Your task to perform on an android device: Go to CNN.com Image 0: 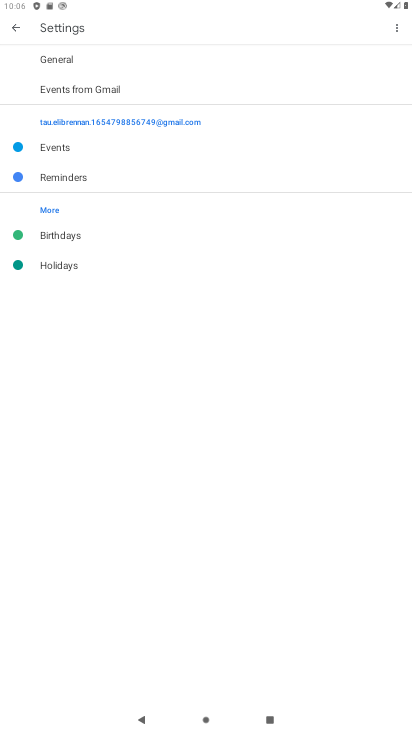
Step 0: press home button
Your task to perform on an android device: Go to CNN.com Image 1: 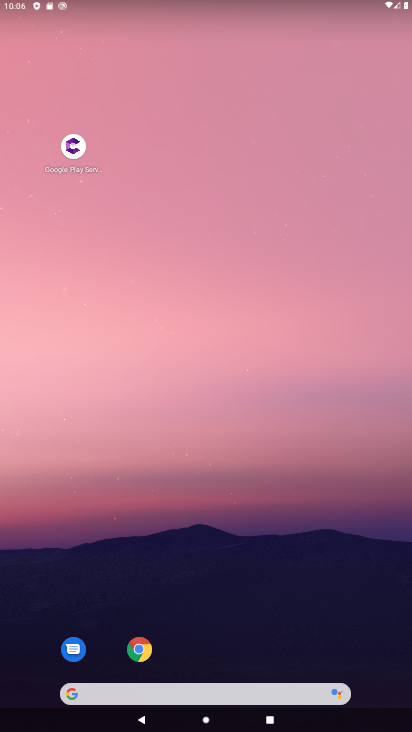
Step 1: click (145, 645)
Your task to perform on an android device: Go to CNN.com Image 2: 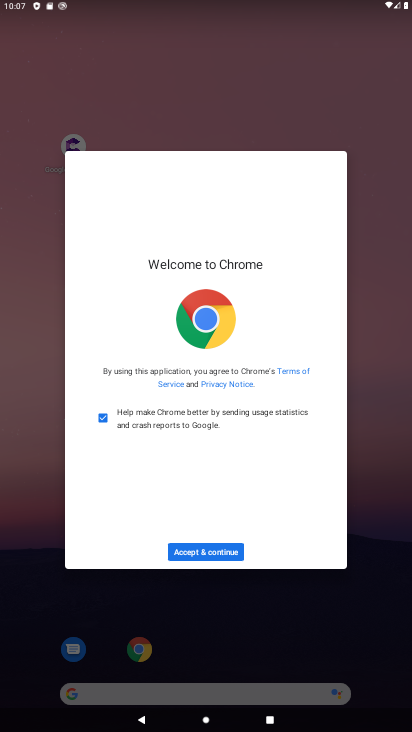
Step 2: click (218, 546)
Your task to perform on an android device: Go to CNN.com Image 3: 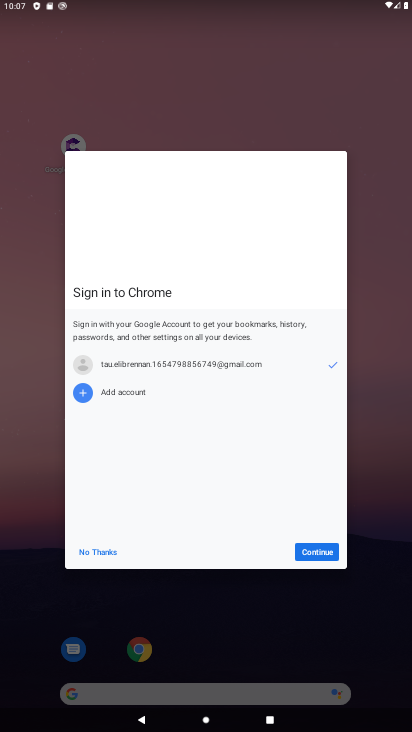
Step 3: click (313, 554)
Your task to perform on an android device: Go to CNN.com Image 4: 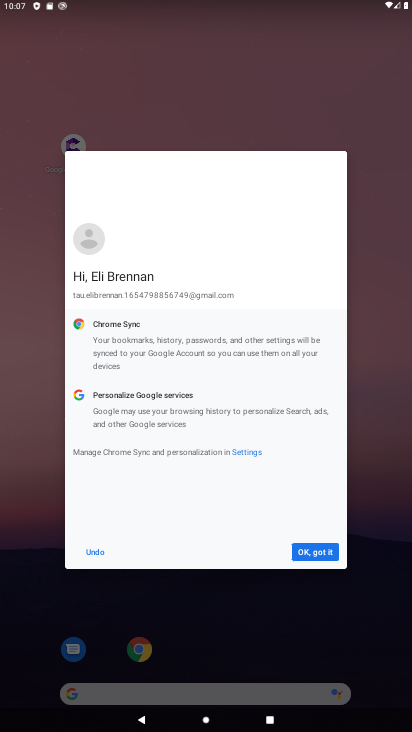
Step 4: click (312, 553)
Your task to perform on an android device: Go to CNN.com Image 5: 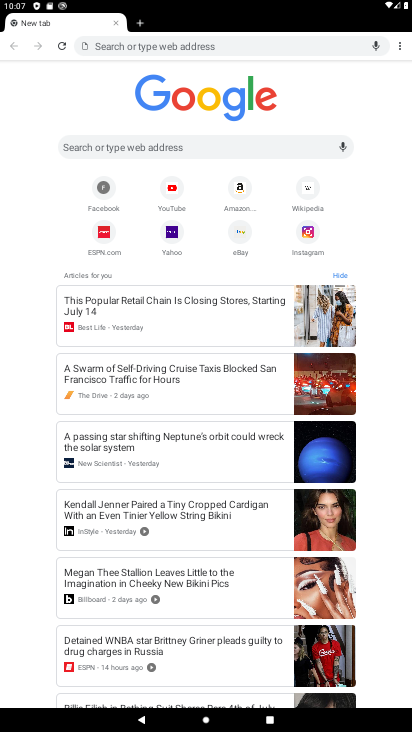
Step 5: click (118, 148)
Your task to perform on an android device: Go to CNN.com Image 6: 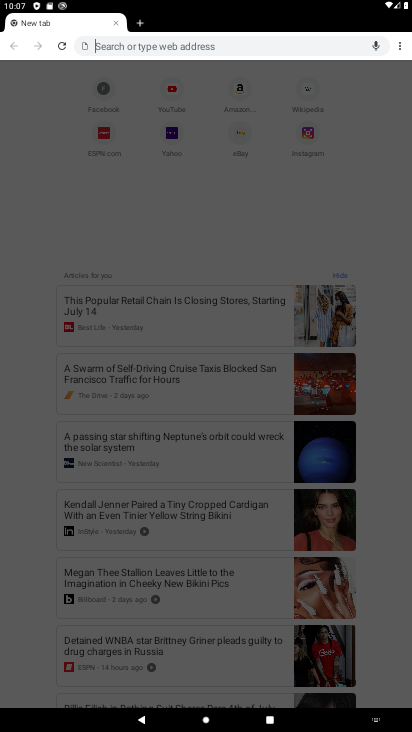
Step 6: drag from (118, 147) to (165, 37)
Your task to perform on an android device: Go to CNN.com Image 7: 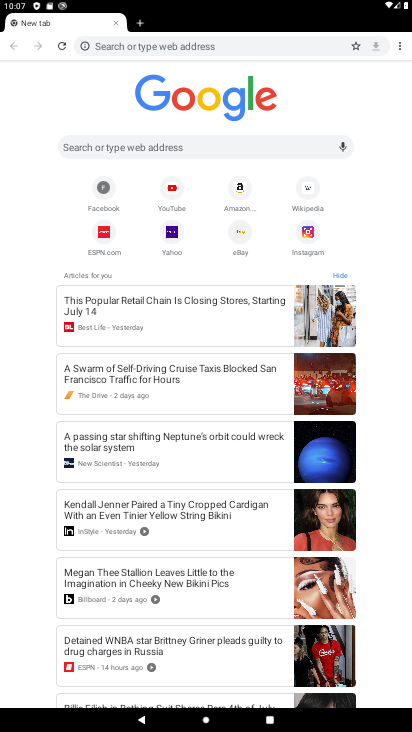
Step 7: click (166, 45)
Your task to perform on an android device: Go to CNN.com Image 8: 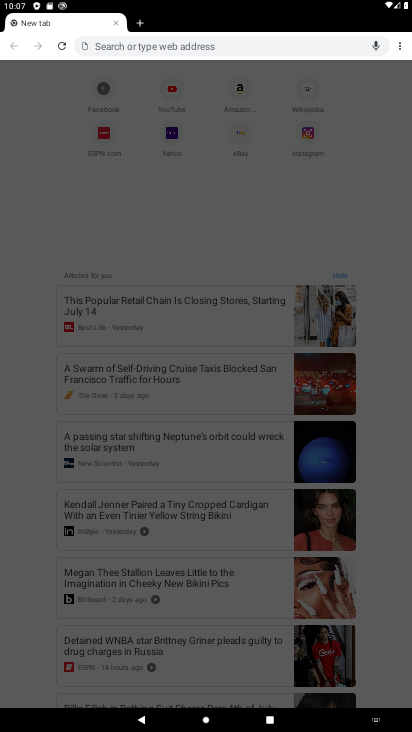
Step 8: type "cnn.com"
Your task to perform on an android device: Go to CNN.com Image 9: 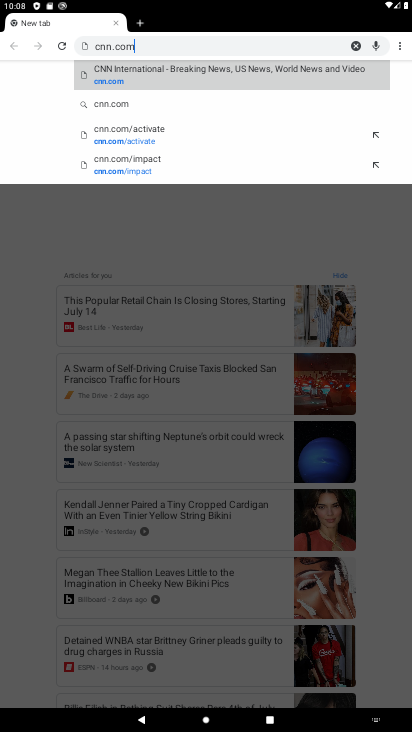
Step 9: click (173, 65)
Your task to perform on an android device: Go to CNN.com Image 10: 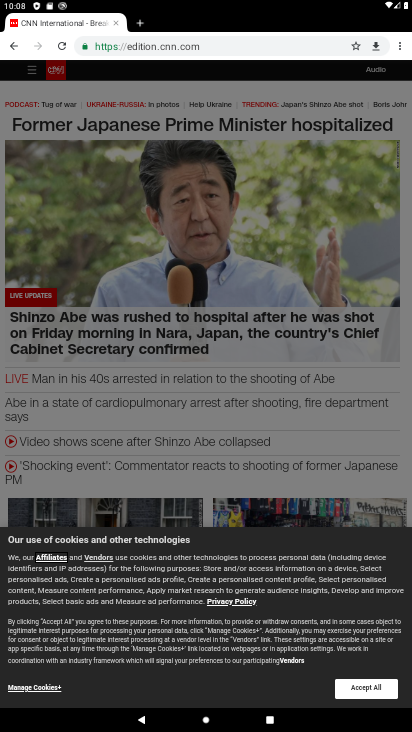
Step 10: task complete